Your task to perform on an android device: Open Chrome and go to settings Image 0: 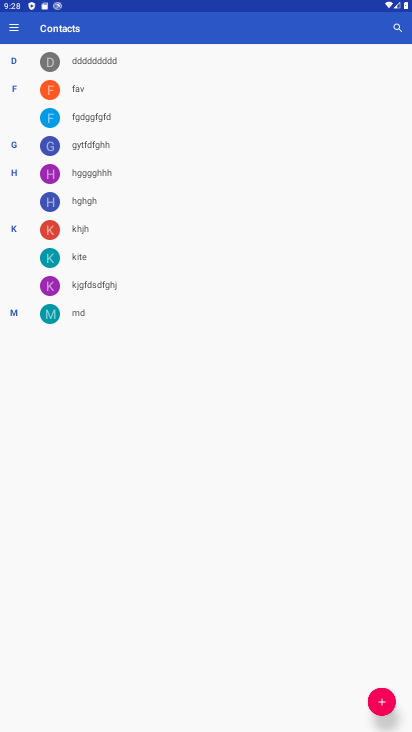
Step 0: press home button
Your task to perform on an android device: Open Chrome and go to settings Image 1: 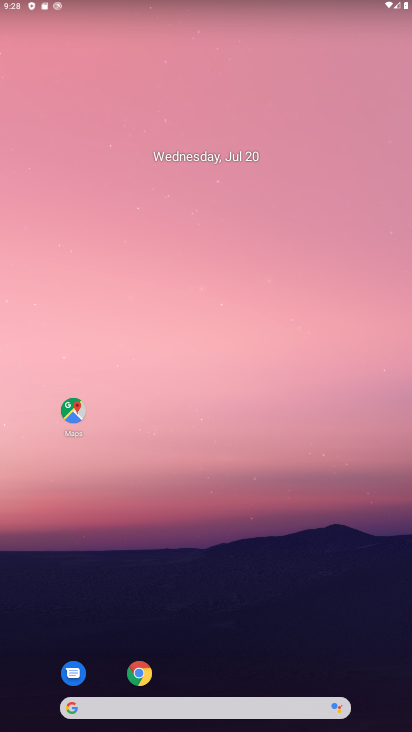
Step 1: click (139, 675)
Your task to perform on an android device: Open Chrome and go to settings Image 2: 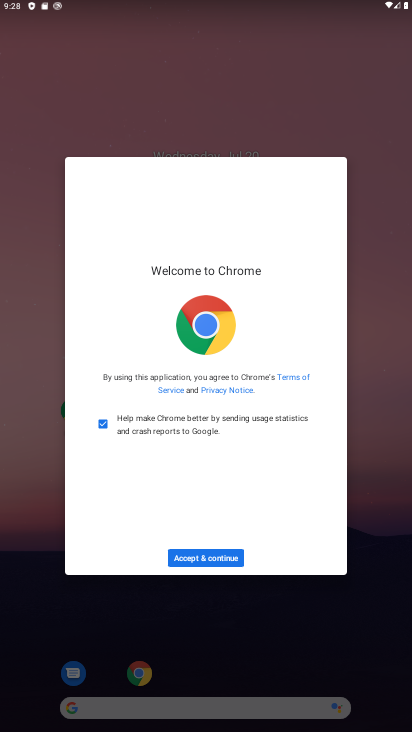
Step 2: click (219, 555)
Your task to perform on an android device: Open Chrome and go to settings Image 3: 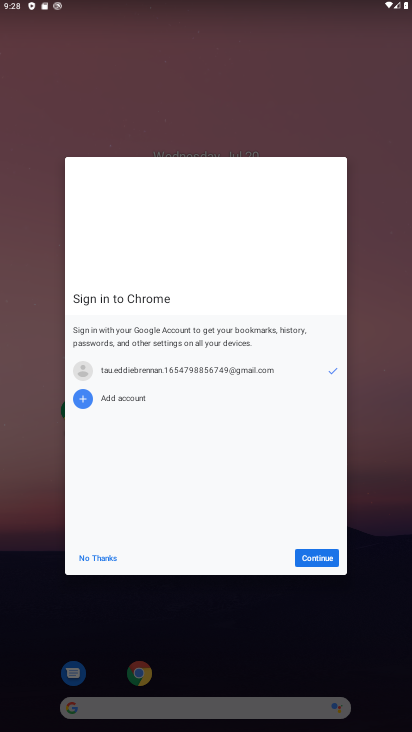
Step 3: click (312, 554)
Your task to perform on an android device: Open Chrome and go to settings Image 4: 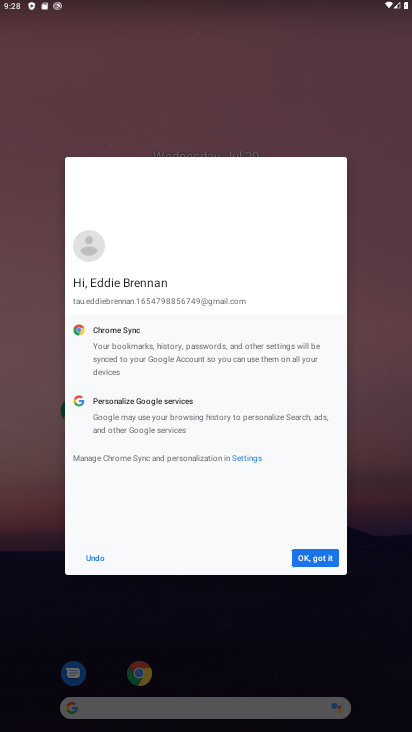
Step 4: click (312, 554)
Your task to perform on an android device: Open Chrome and go to settings Image 5: 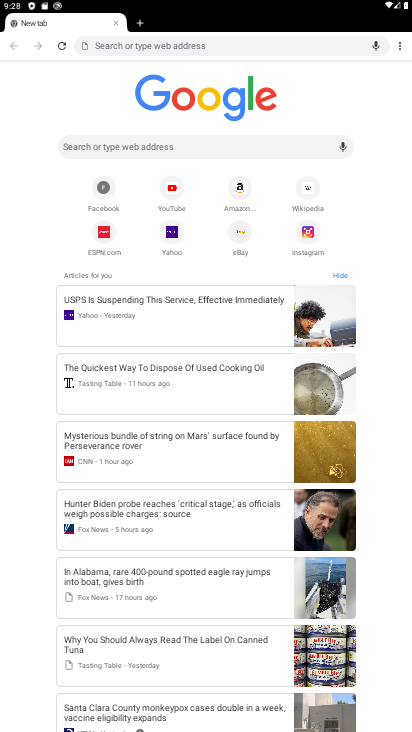
Step 5: click (399, 42)
Your task to perform on an android device: Open Chrome and go to settings Image 6: 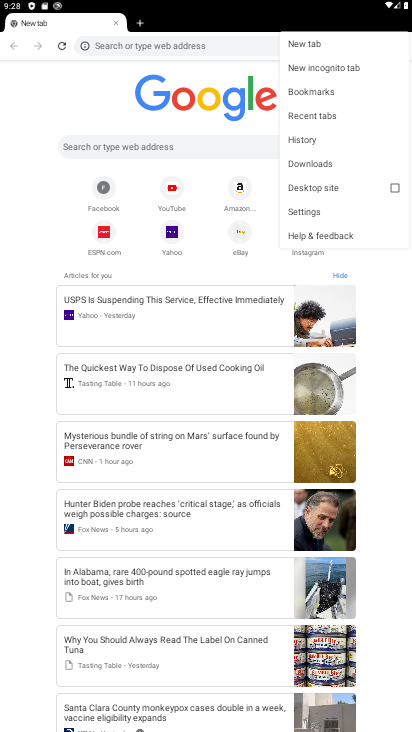
Step 6: click (310, 209)
Your task to perform on an android device: Open Chrome and go to settings Image 7: 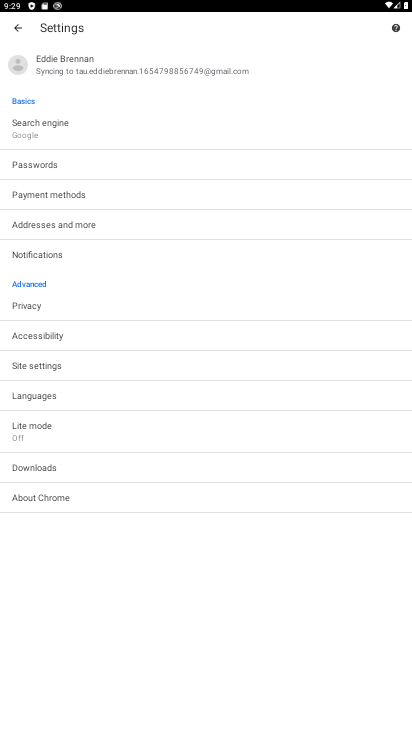
Step 7: task complete